Your task to perform on an android device: open app "Google Drive" Image 0: 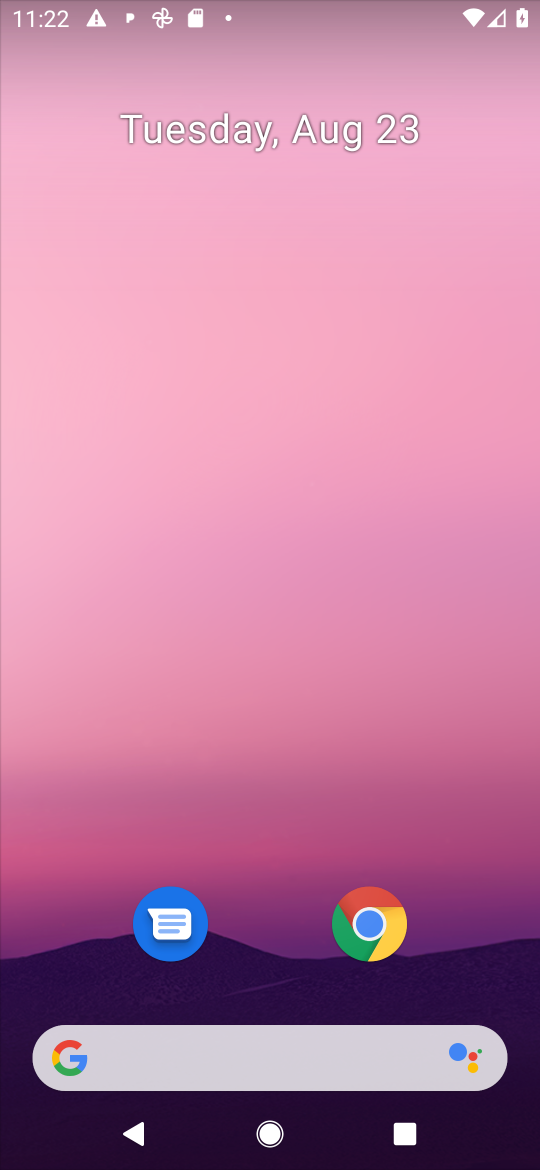
Step 0: press home button
Your task to perform on an android device: open app "Google Drive" Image 1: 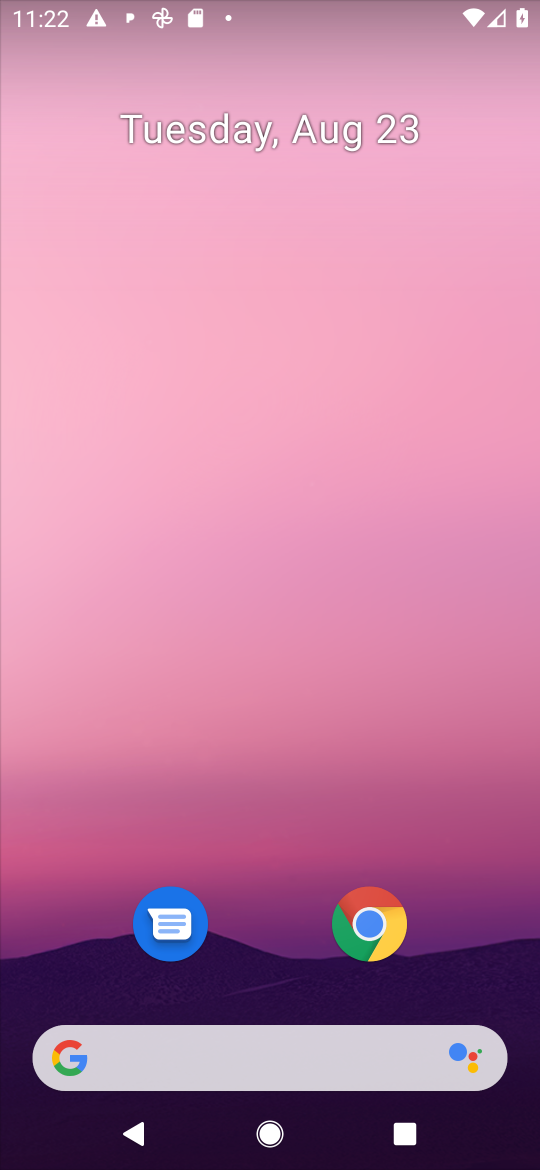
Step 1: drag from (481, 976) to (503, 177)
Your task to perform on an android device: open app "Google Drive" Image 2: 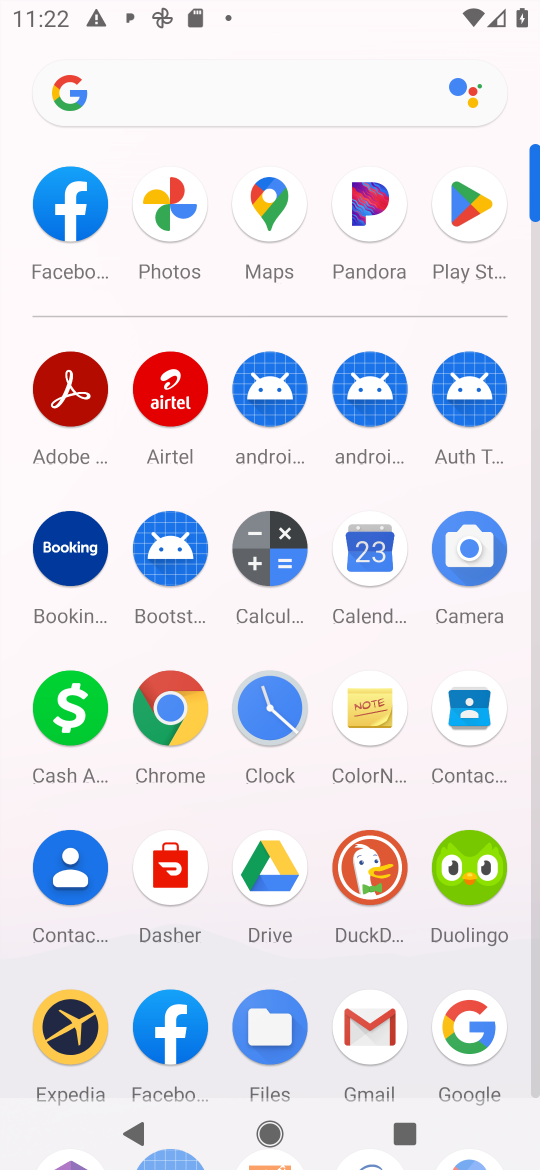
Step 2: click (467, 209)
Your task to perform on an android device: open app "Google Drive" Image 3: 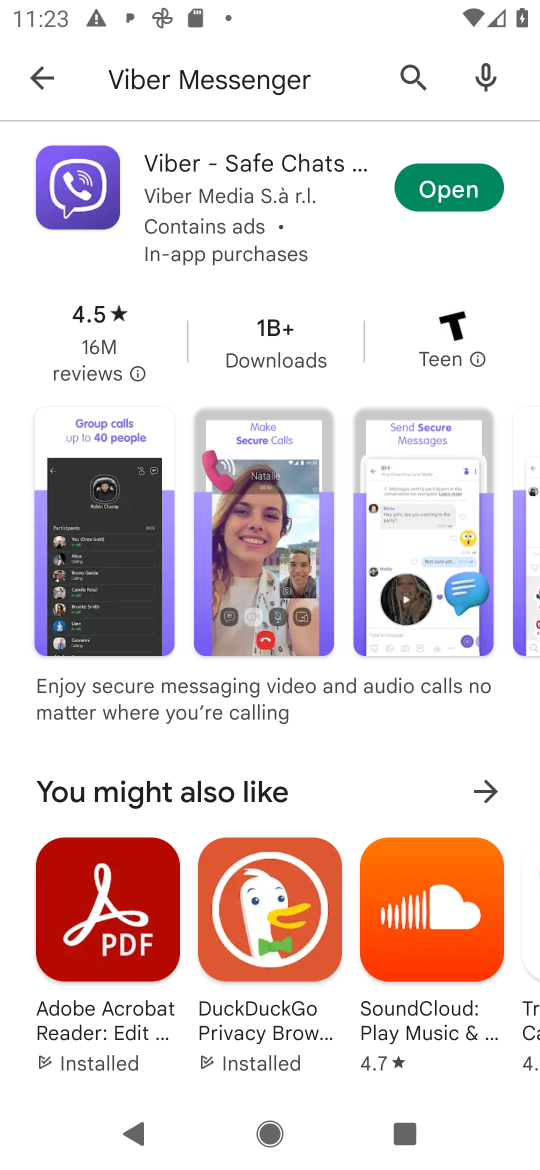
Step 3: press back button
Your task to perform on an android device: open app "Google Drive" Image 4: 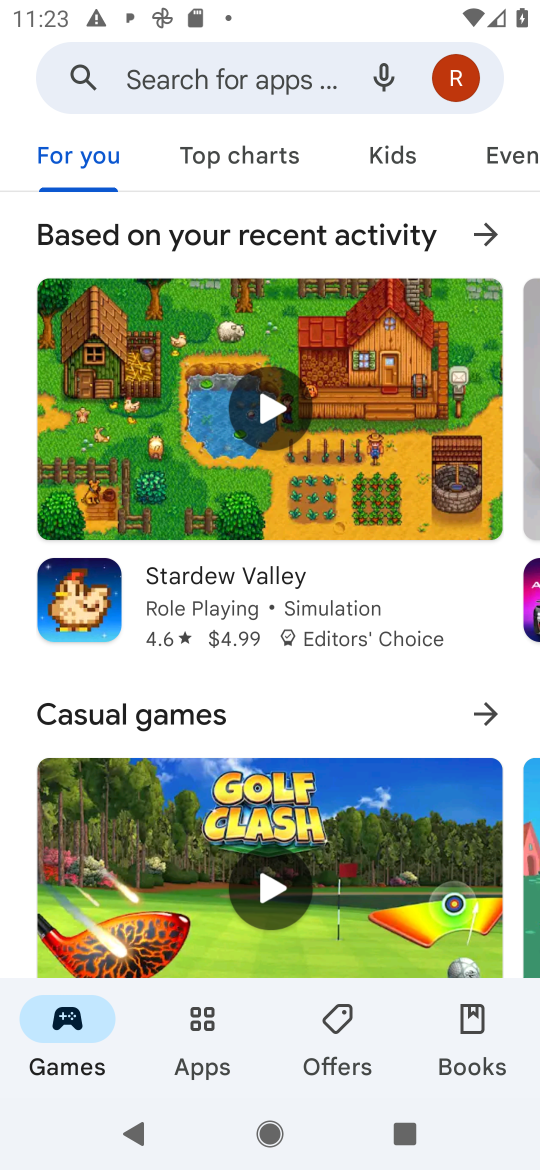
Step 4: click (241, 83)
Your task to perform on an android device: open app "Google Drive" Image 5: 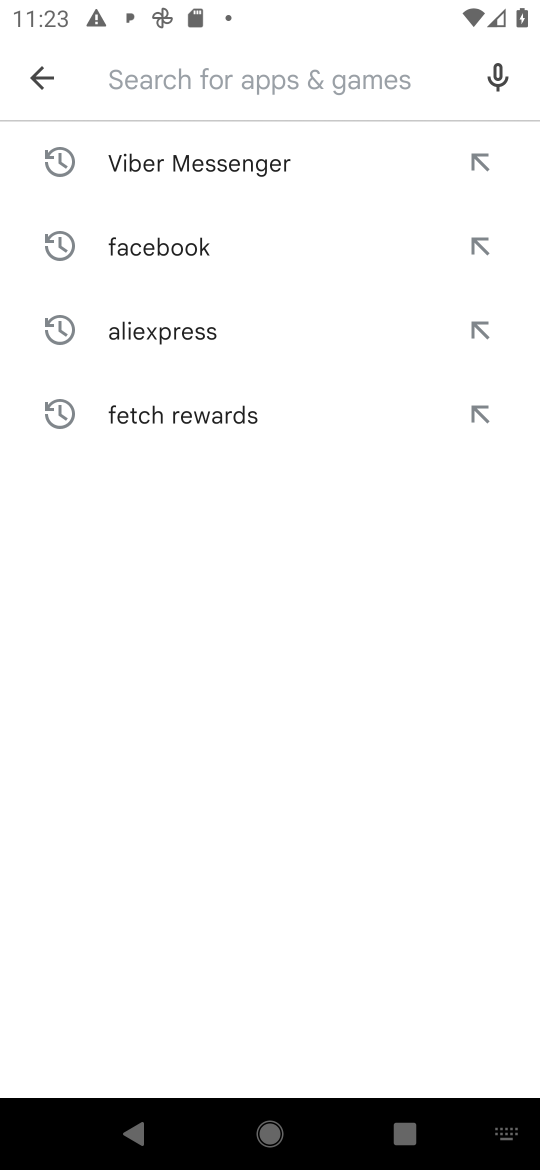
Step 5: press enter
Your task to perform on an android device: open app "Google Drive" Image 6: 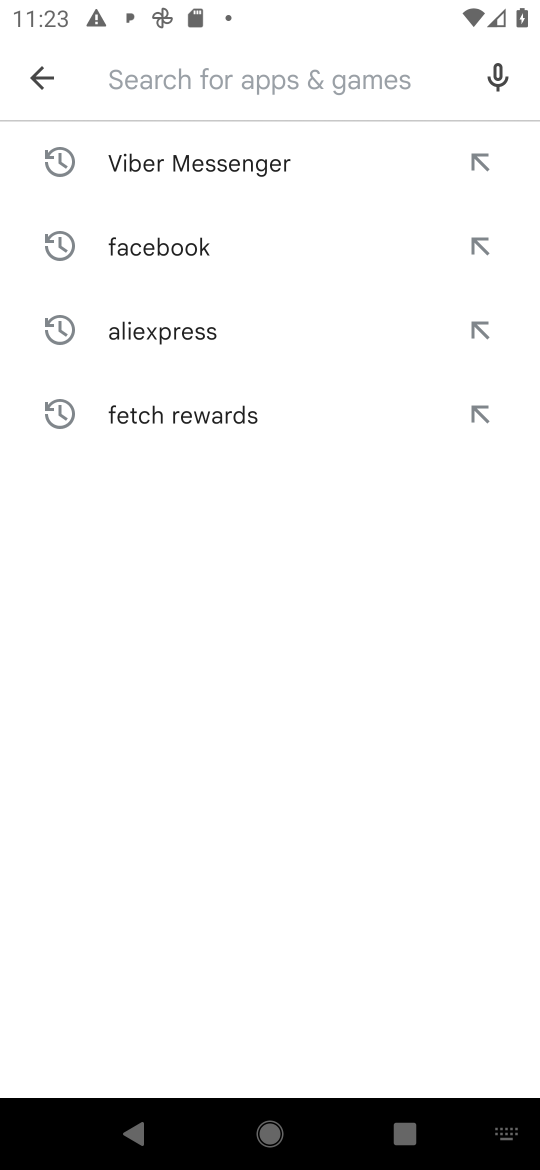
Step 6: type "google drive"
Your task to perform on an android device: open app "Google Drive" Image 7: 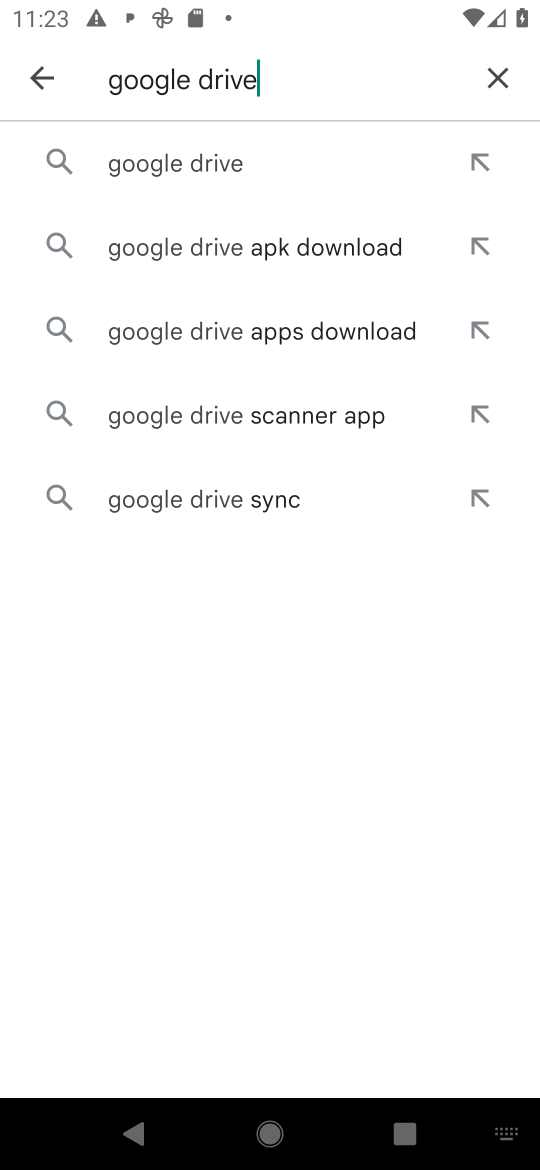
Step 7: click (234, 170)
Your task to perform on an android device: open app "Google Drive" Image 8: 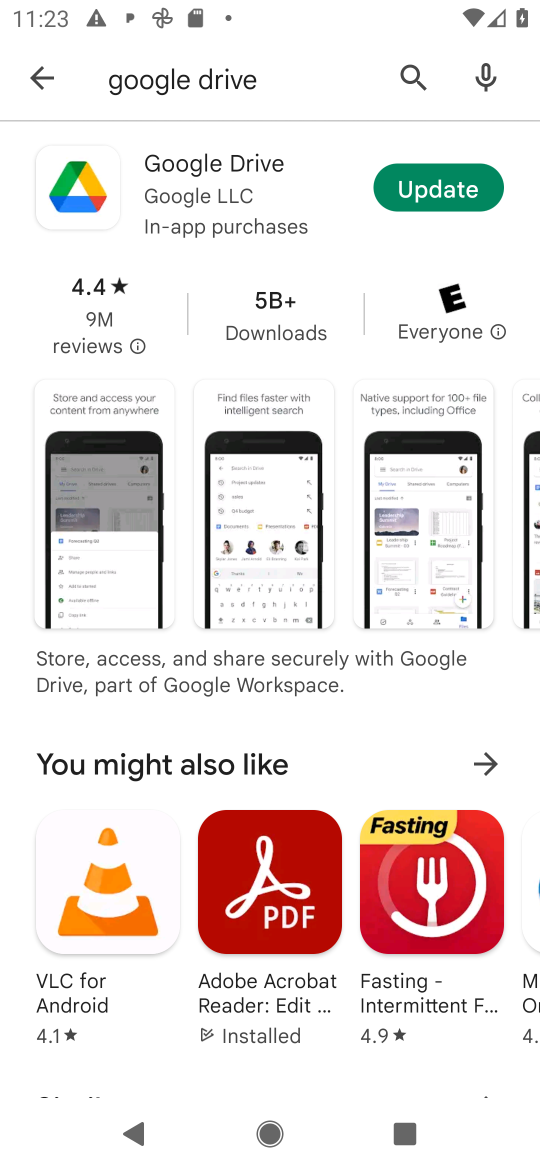
Step 8: click (409, 190)
Your task to perform on an android device: open app "Google Drive" Image 9: 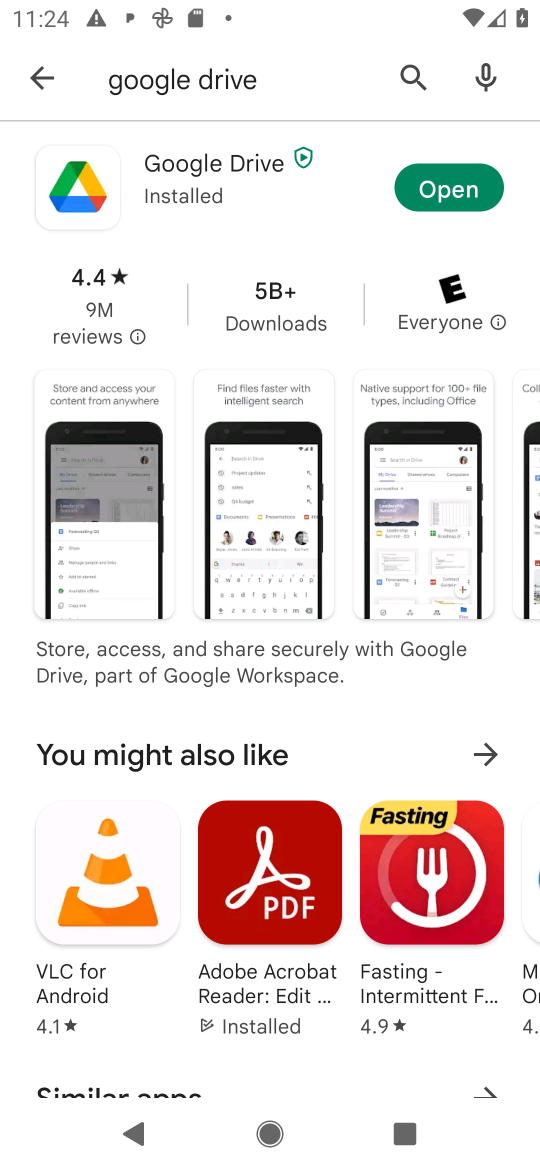
Step 9: click (467, 193)
Your task to perform on an android device: open app "Google Drive" Image 10: 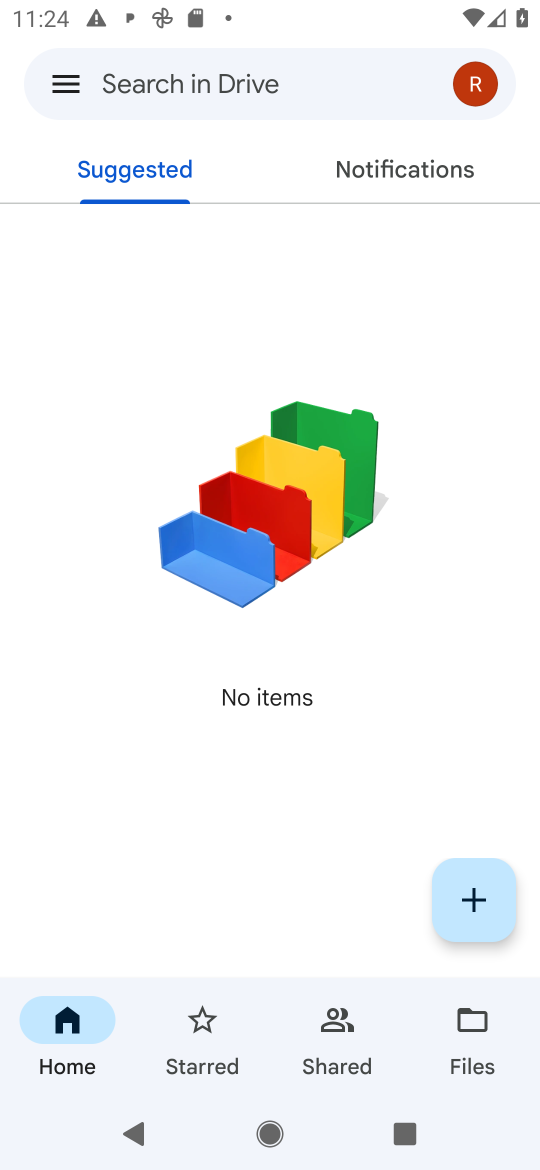
Step 10: task complete